Your task to perform on an android device: turn on the 12-hour format for clock Image 0: 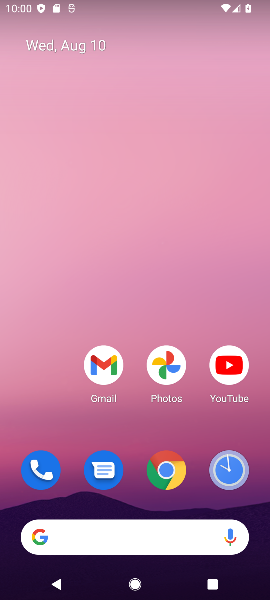
Step 0: click (235, 468)
Your task to perform on an android device: turn on the 12-hour format for clock Image 1: 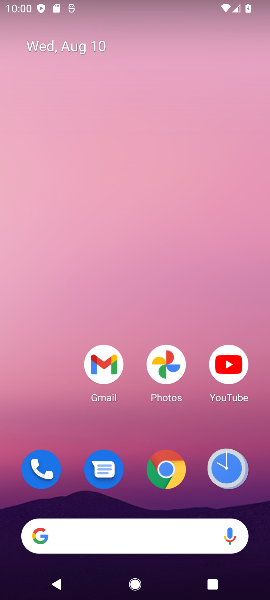
Step 1: click (224, 473)
Your task to perform on an android device: turn on the 12-hour format for clock Image 2: 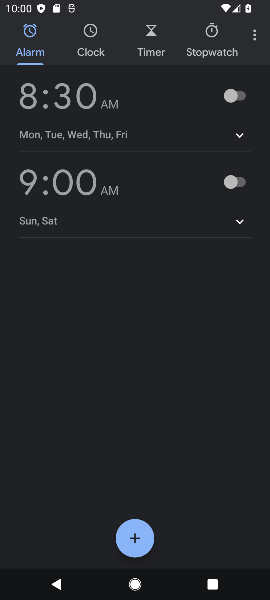
Step 2: click (258, 36)
Your task to perform on an android device: turn on the 12-hour format for clock Image 3: 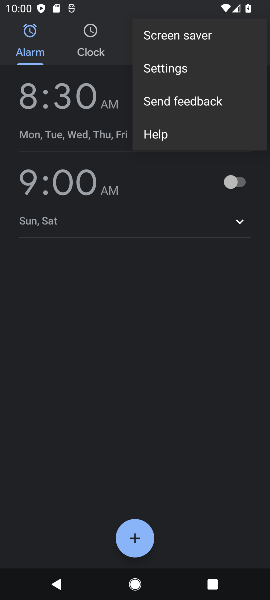
Step 3: click (207, 66)
Your task to perform on an android device: turn on the 12-hour format for clock Image 4: 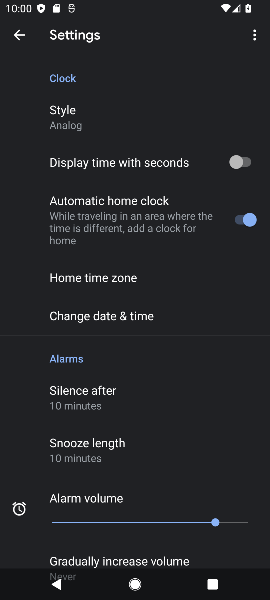
Step 4: task complete